Your task to perform on an android device: Go to Maps Image 0: 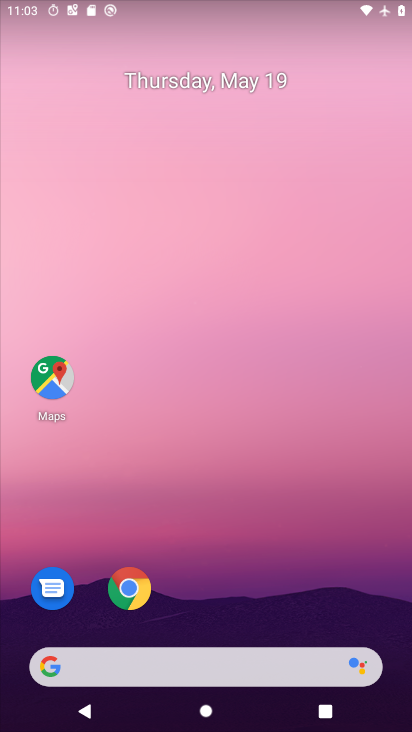
Step 0: click (57, 383)
Your task to perform on an android device: Go to Maps Image 1: 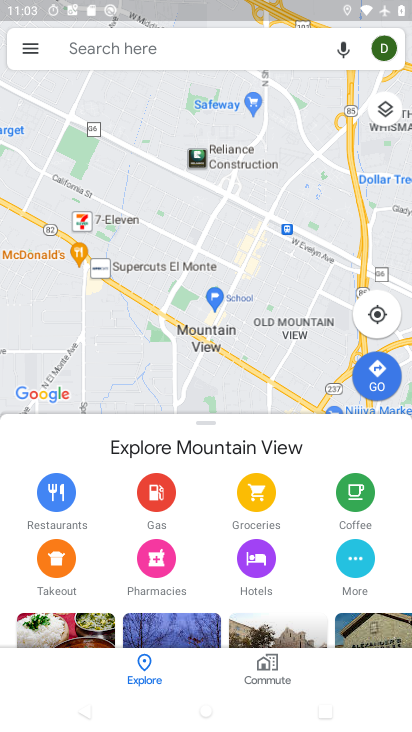
Step 1: task complete